Your task to perform on an android device: Open privacy settings Image 0: 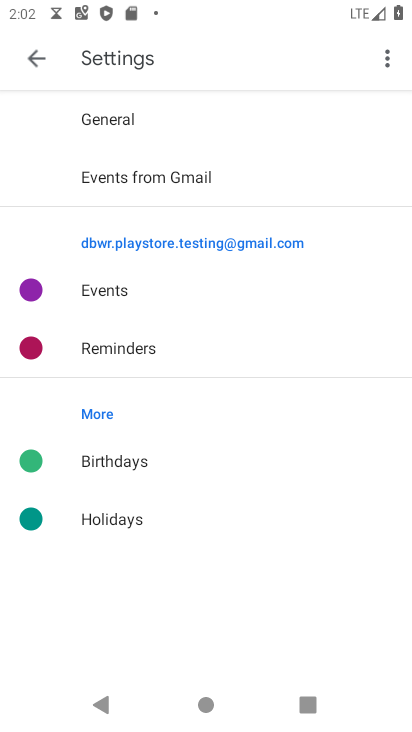
Step 0: press home button
Your task to perform on an android device: Open privacy settings Image 1: 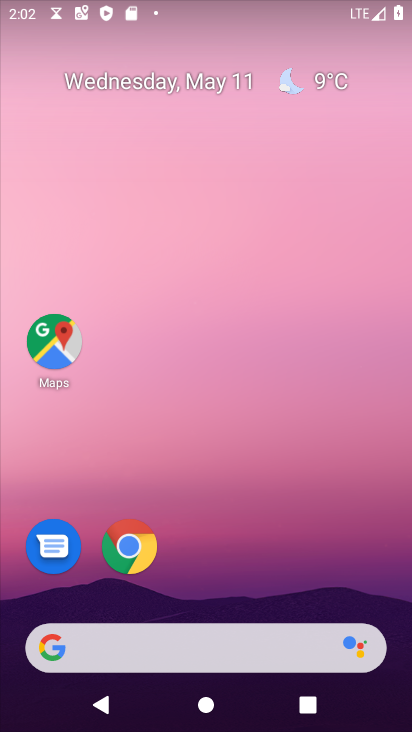
Step 1: drag from (210, 641) to (230, 30)
Your task to perform on an android device: Open privacy settings Image 2: 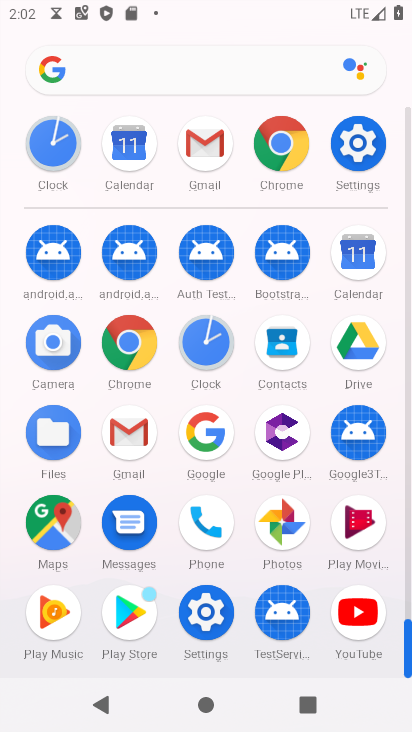
Step 2: click (361, 146)
Your task to perform on an android device: Open privacy settings Image 3: 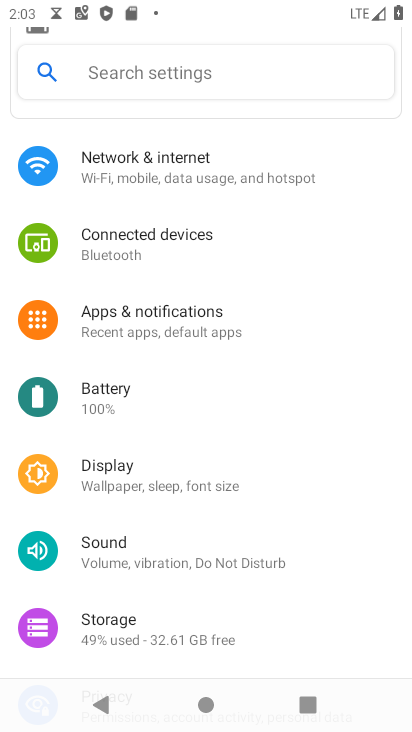
Step 3: drag from (235, 647) to (234, 217)
Your task to perform on an android device: Open privacy settings Image 4: 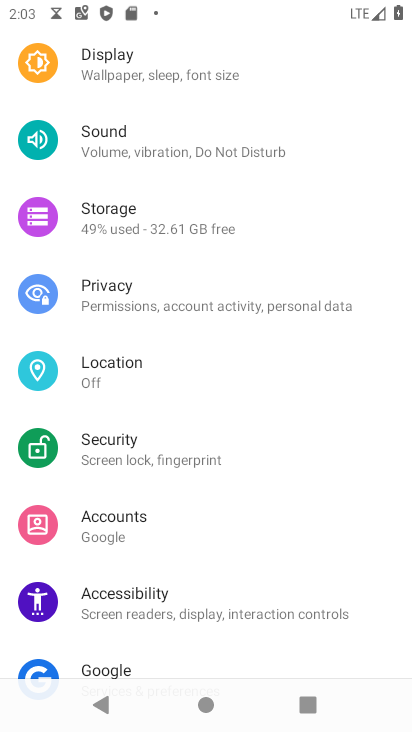
Step 4: click (224, 308)
Your task to perform on an android device: Open privacy settings Image 5: 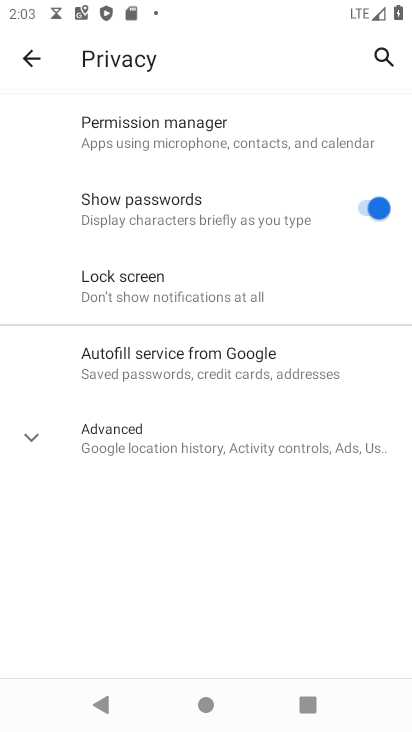
Step 5: task complete